Your task to perform on an android device: toggle javascript in the chrome app Image 0: 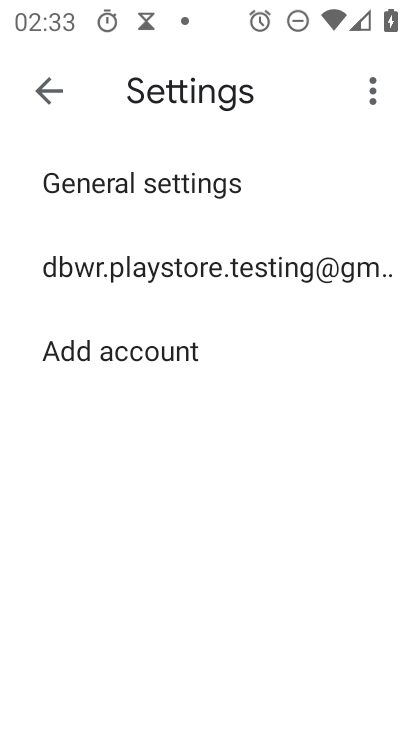
Step 0: press home button
Your task to perform on an android device: toggle javascript in the chrome app Image 1: 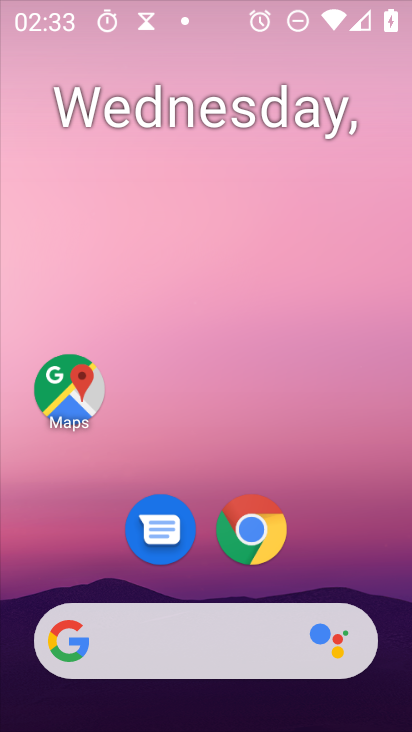
Step 1: drag from (272, 687) to (310, 41)
Your task to perform on an android device: toggle javascript in the chrome app Image 2: 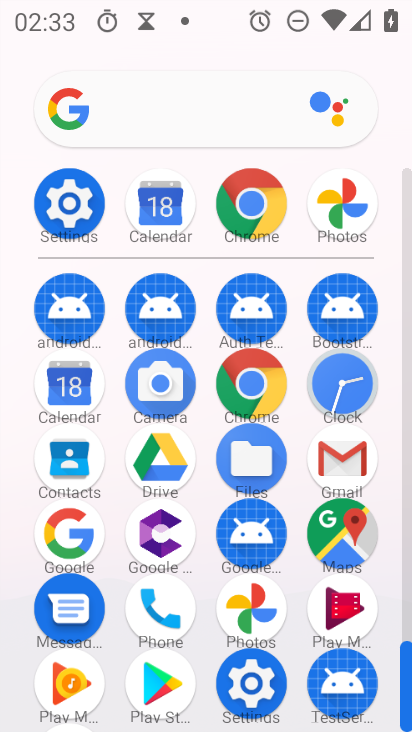
Step 2: click (263, 406)
Your task to perform on an android device: toggle javascript in the chrome app Image 3: 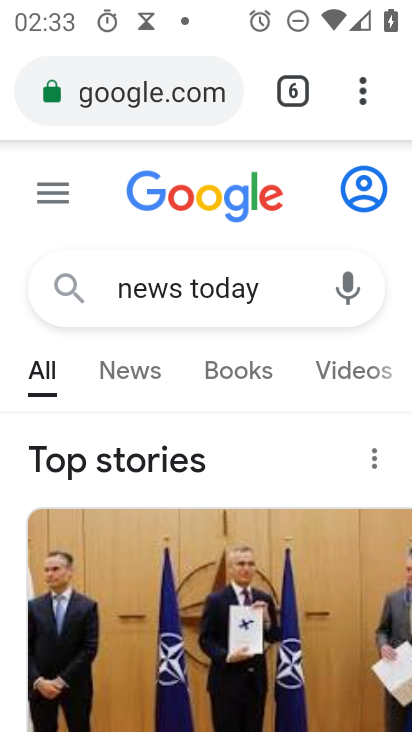
Step 3: drag from (370, 93) to (176, 571)
Your task to perform on an android device: toggle javascript in the chrome app Image 4: 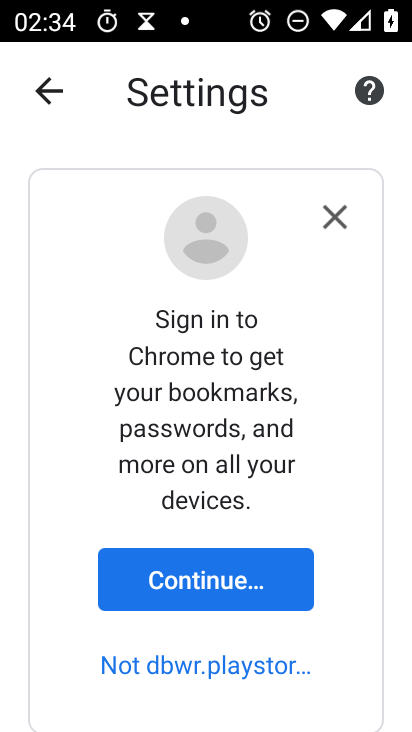
Step 4: drag from (348, 657) to (392, 66)
Your task to perform on an android device: toggle javascript in the chrome app Image 5: 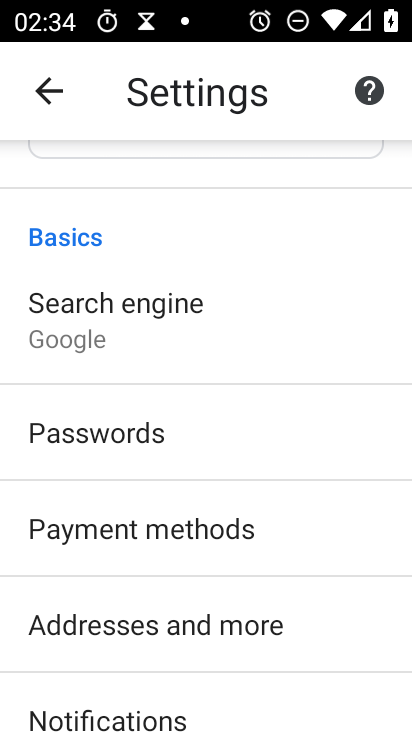
Step 5: drag from (312, 638) to (302, 21)
Your task to perform on an android device: toggle javascript in the chrome app Image 6: 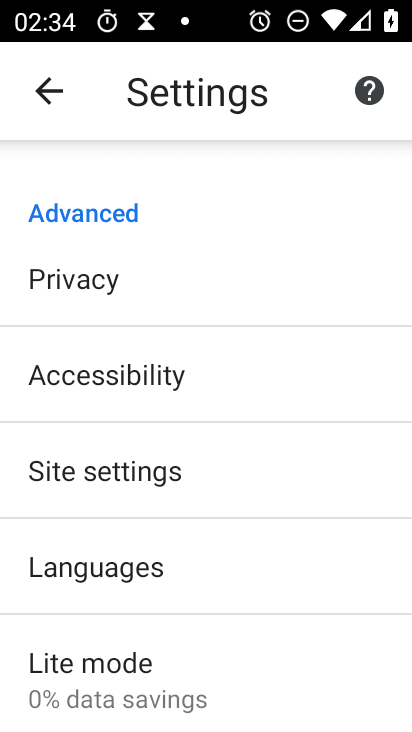
Step 6: click (162, 488)
Your task to perform on an android device: toggle javascript in the chrome app Image 7: 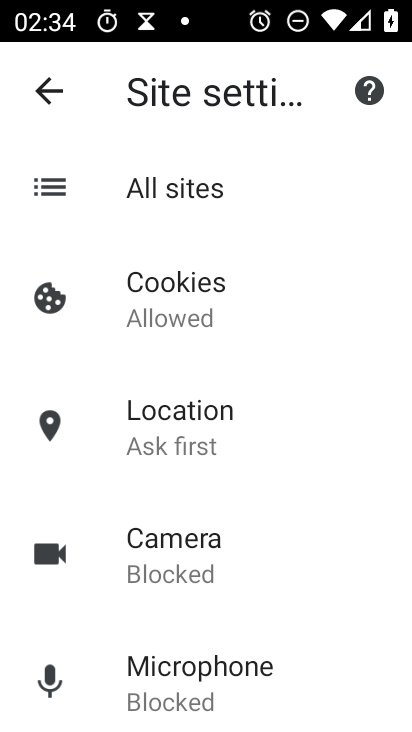
Step 7: drag from (195, 643) to (179, 96)
Your task to perform on an android device: toggle javascript in the chrome app Image 8: 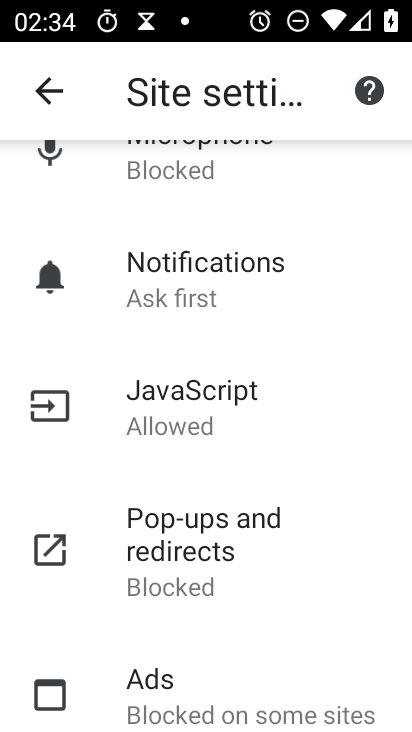
Step 8: click (246, 408)
Your task to perform on an android device: toggle javascript in the chrome app Image 9: 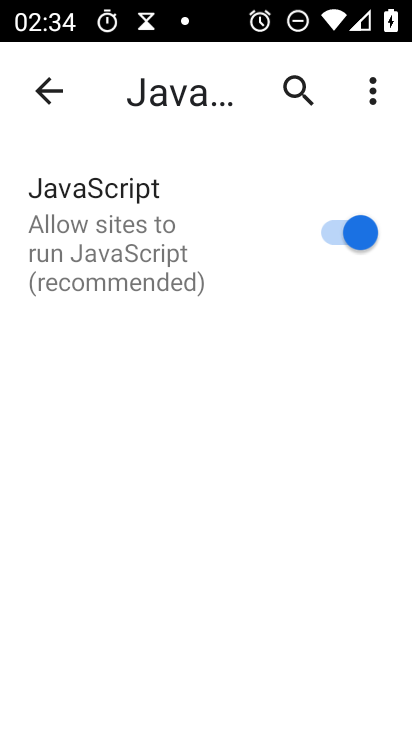
Step 9: click (341, 228)
Your task to perform on an android device: toggle javascript in the chrome app Image 10: 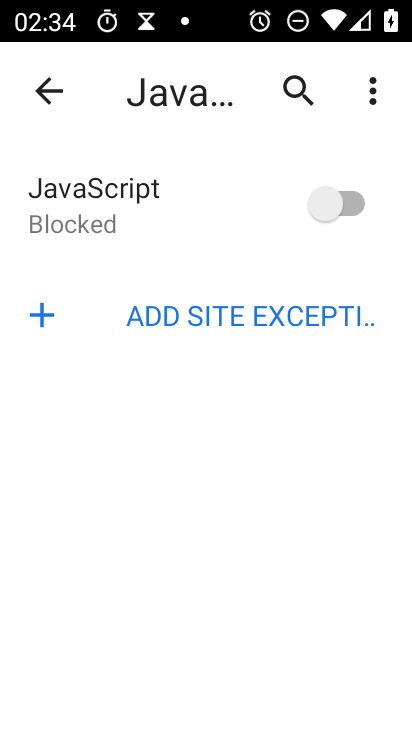
Step 10: task complete